Your task to perform on an android device: Open the stopwatch Image 0: 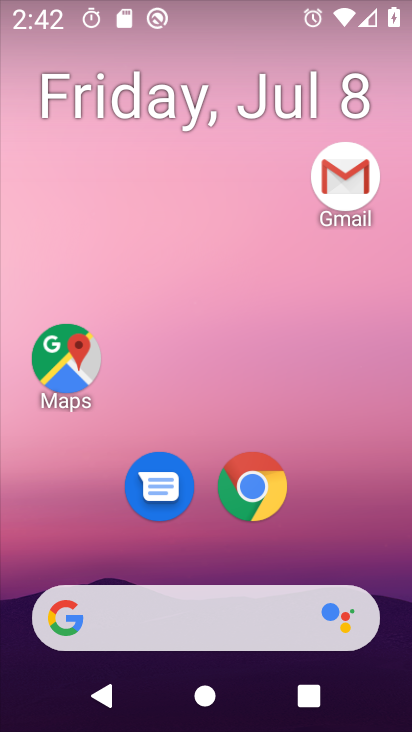
Step 0: drag from (369, 519) to (318, 146)
Your task to perform on an android device: Open the stopwatch Image 1: 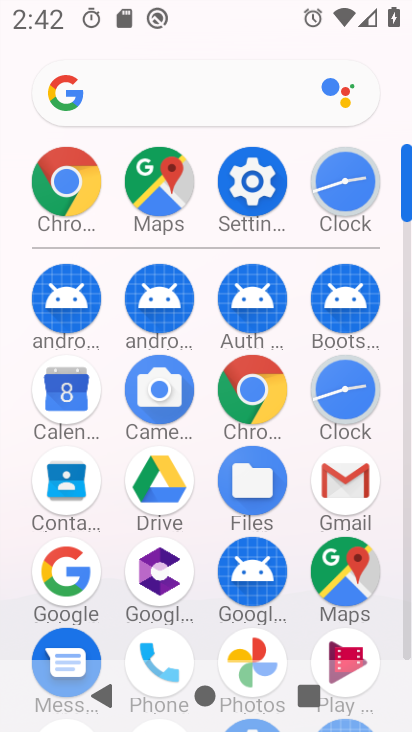
Step 1: click (359, 398)
Your task to perform on an android device: Open the stopwatch Image 2: 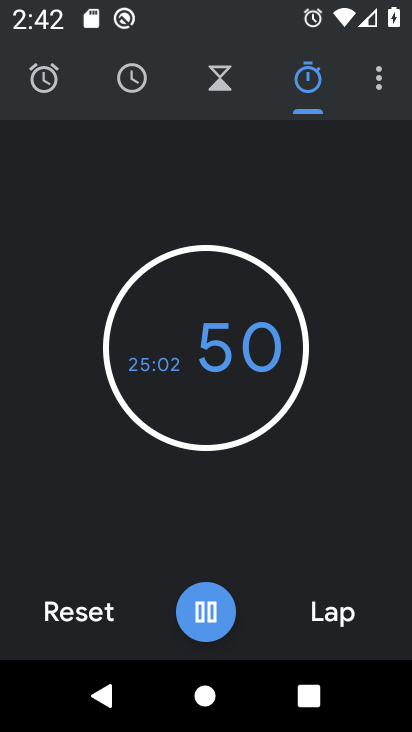
Step 2: task complete